Your task to perform on an android device: turn off sleep mode Image 0: 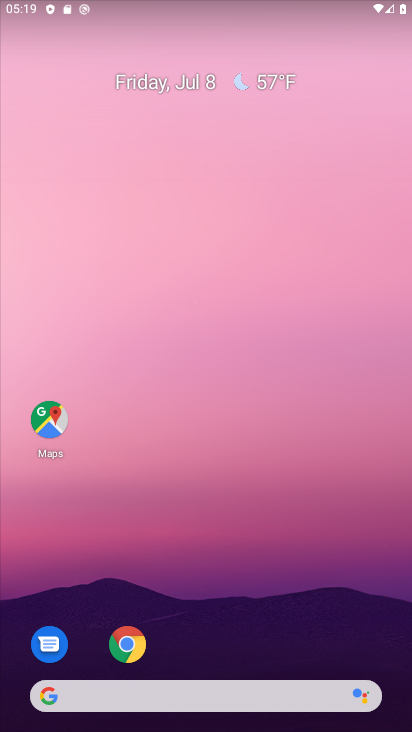
Step 0: drag from (217, 690) to (215, 37)
Your task to perform on an android device: turn off sleep mode Image 1: 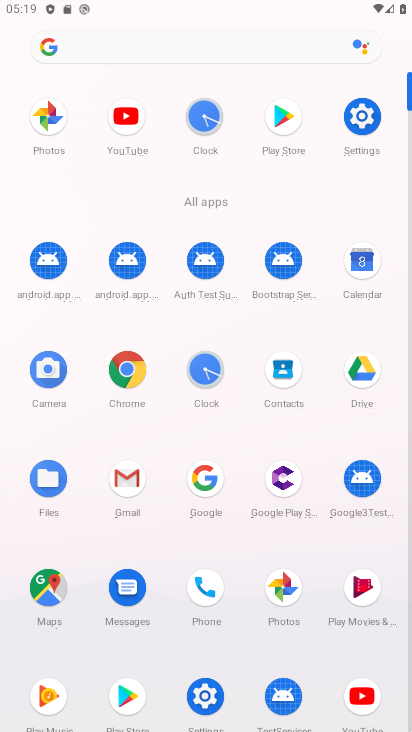
Step 1: click (362, 114)
Your task to perform on an android device: turn off sleep mode Image 2: 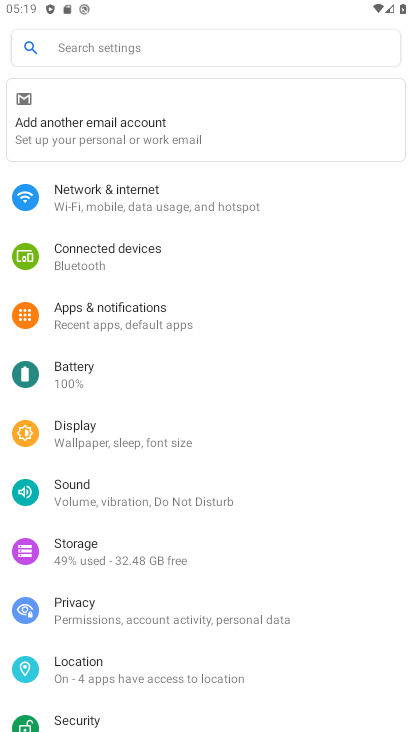
Step 2: click (58, 378)
Your task to perform on an android device: turn off sleep mode Image 3: 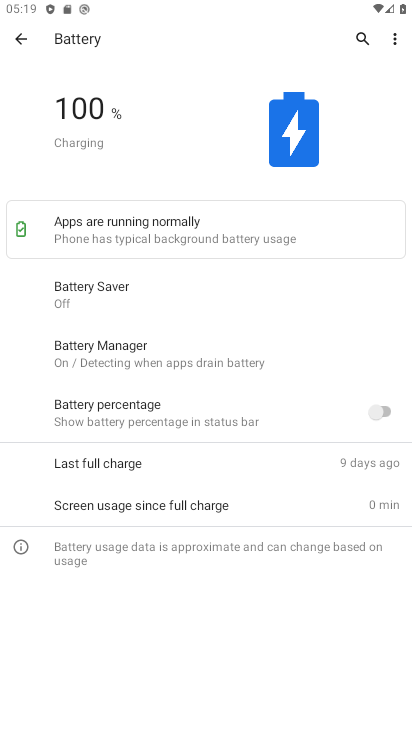
Step 3: press back button
Your task to perform on an android device: turn off sleep mode Image 4: 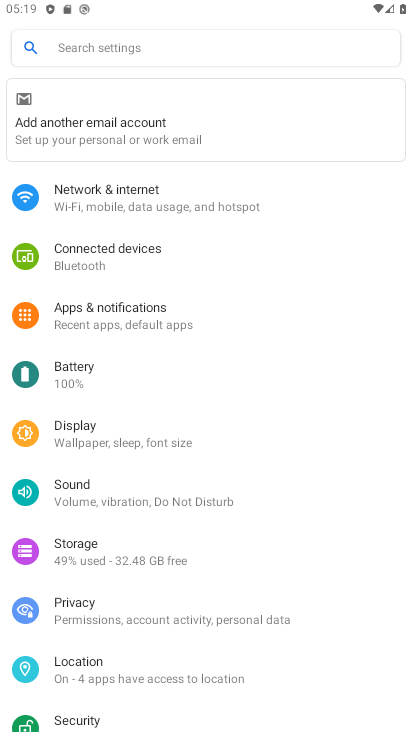
Step 4: click (65, 423)
Your task to perform on an android device: turn off sleep mode Image 5: 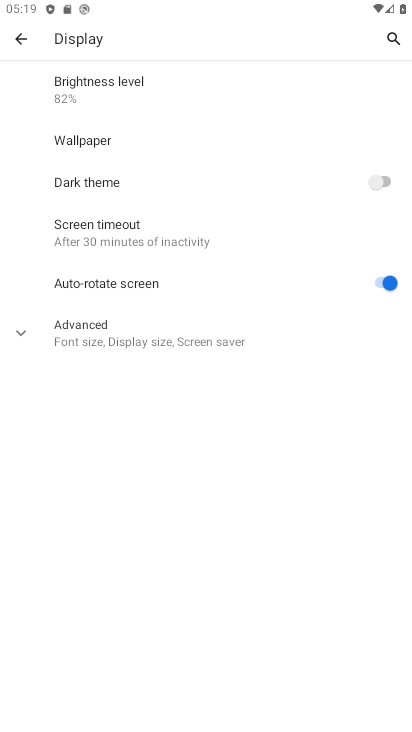
Step 5: click (76, 341)
Your task to perform on an android device: turn off sleep mode Image 6: 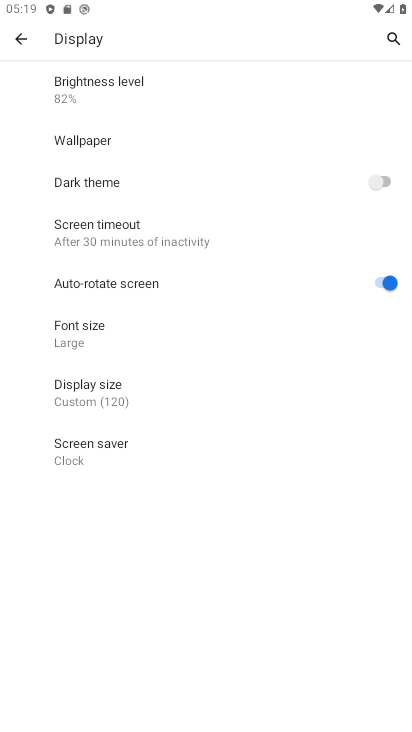
Step 6: task complete